Your task to perform on an android device: open chrome privacy settings Image 0: 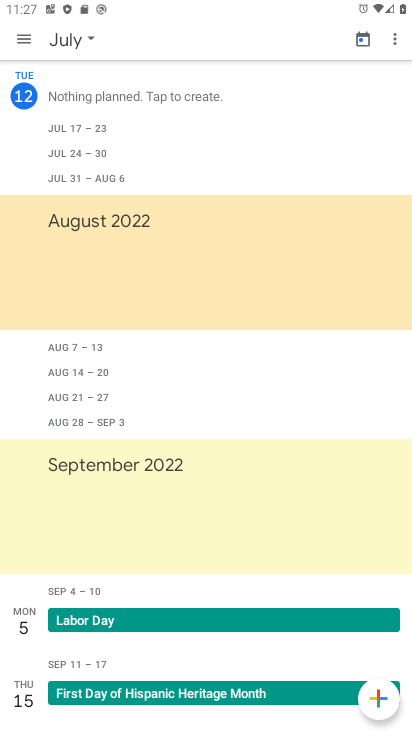
Step 0: press home button
Your task to perform on an android device: open chrome privacy settings Image 1: 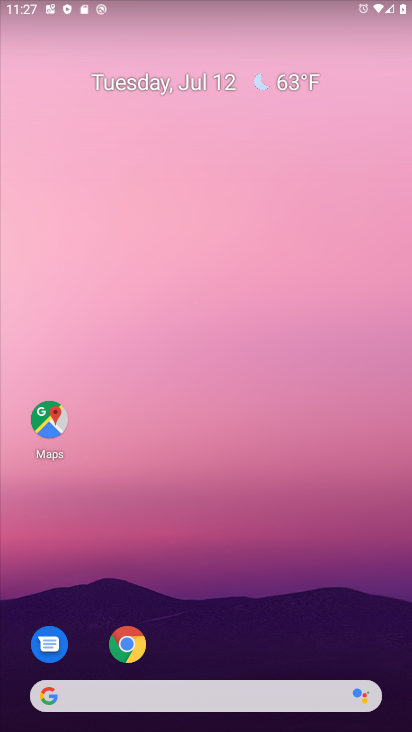
Step 1: click (128, 648)
Your task to perform on an android device: open chrome privacy settings Image 2: 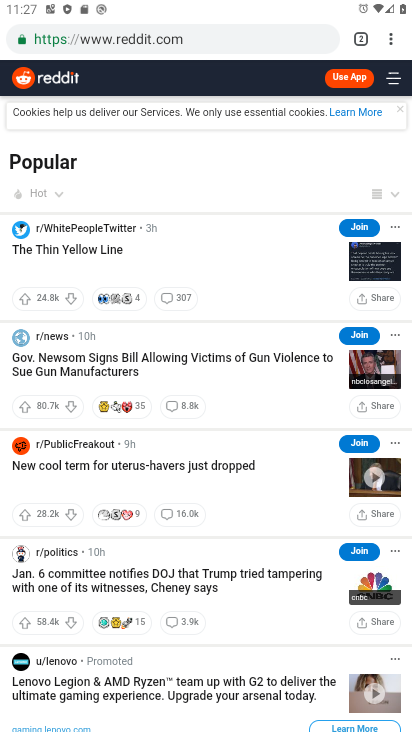
Step 2: click (393, 43)
Your task to perform on an android device: open chrome privacy settings Image 3: 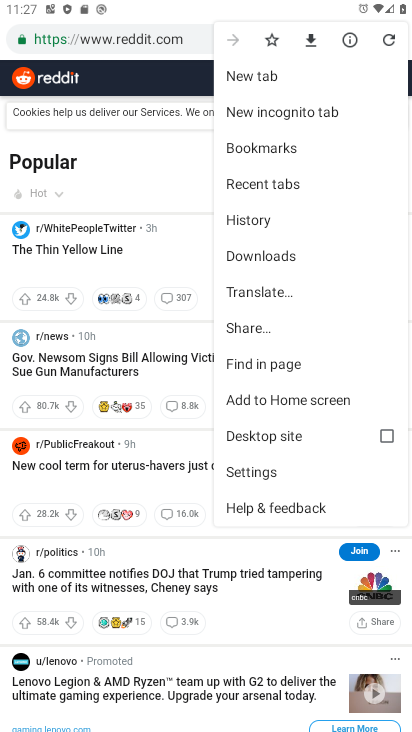
Step 3: click (266, 468)
Your task to perform on an android device: open chrome privacy settings Image 4: 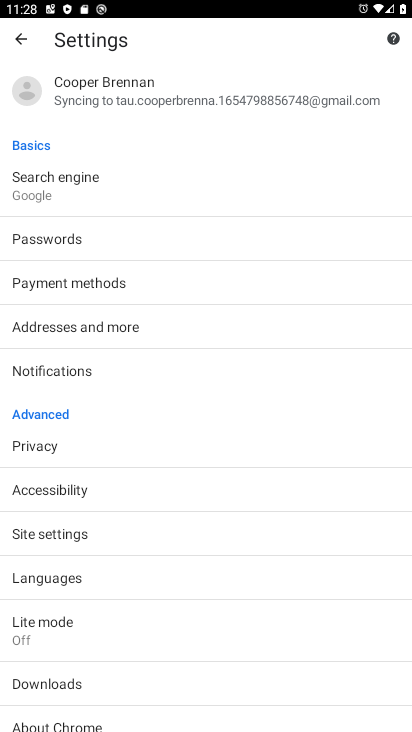
Step 4: click (52, 454)
Your task to perform on an android device: open chrome privacy settings Image 5: 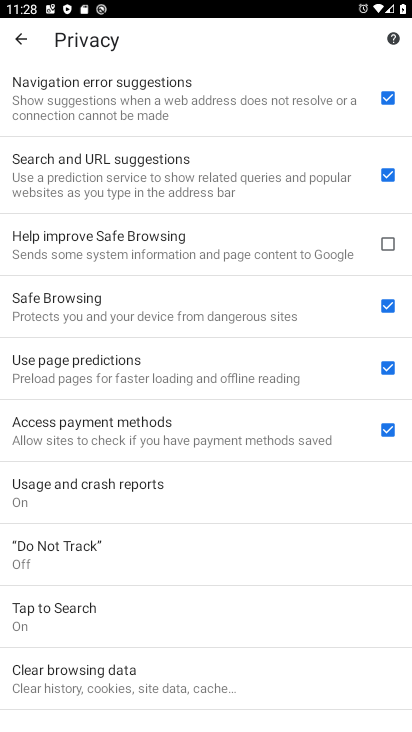
Step 5: task complete